Your task to perform on an android device: create a new album in the google photos Image 0: 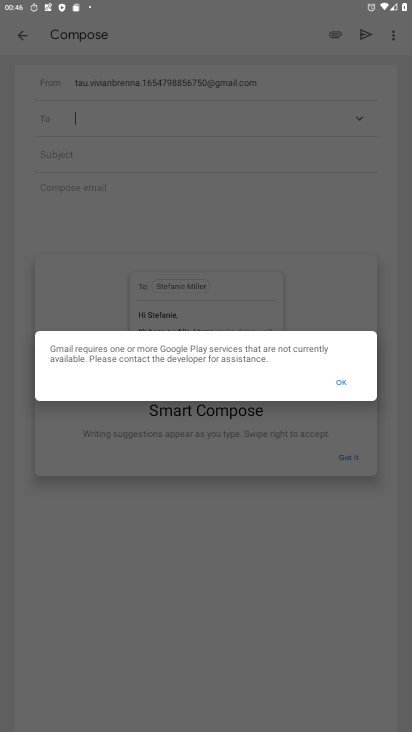
Step 0: press home button
Your task to perform on an android device: create a new album in the google photos Image 1: 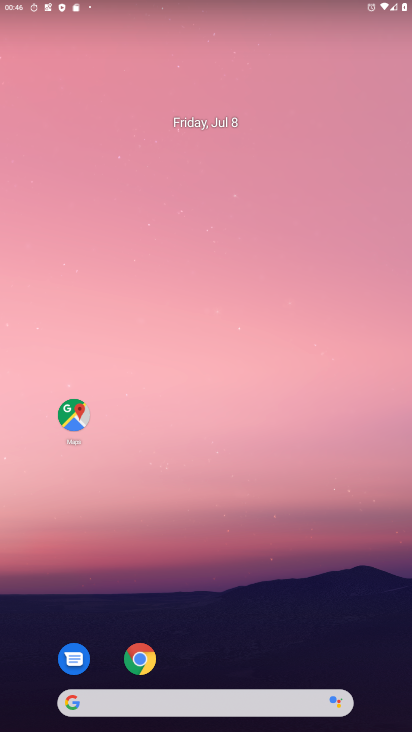
Step 1: drag from (199, 670) to (182, 87)
Your task to perform on an android device: create a new album in the google photos Image 2: 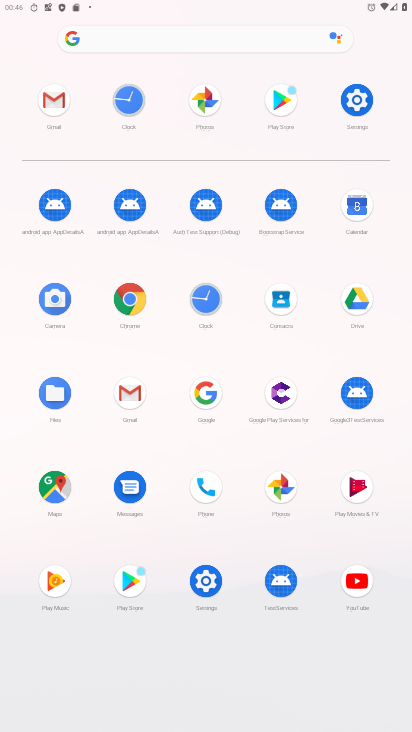
Step 2: click (206, 97)
Your task to perform on an android device: create a new album in the google photos Image 3: 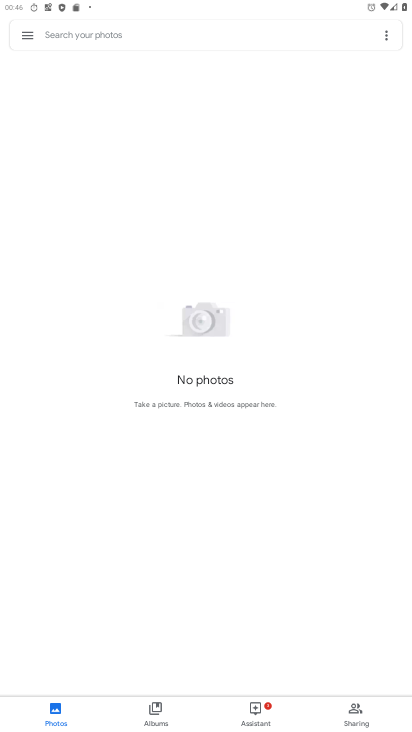
Step 3: task complete